Your task to perform on an android device: toggle improve location accuracy Image 0: 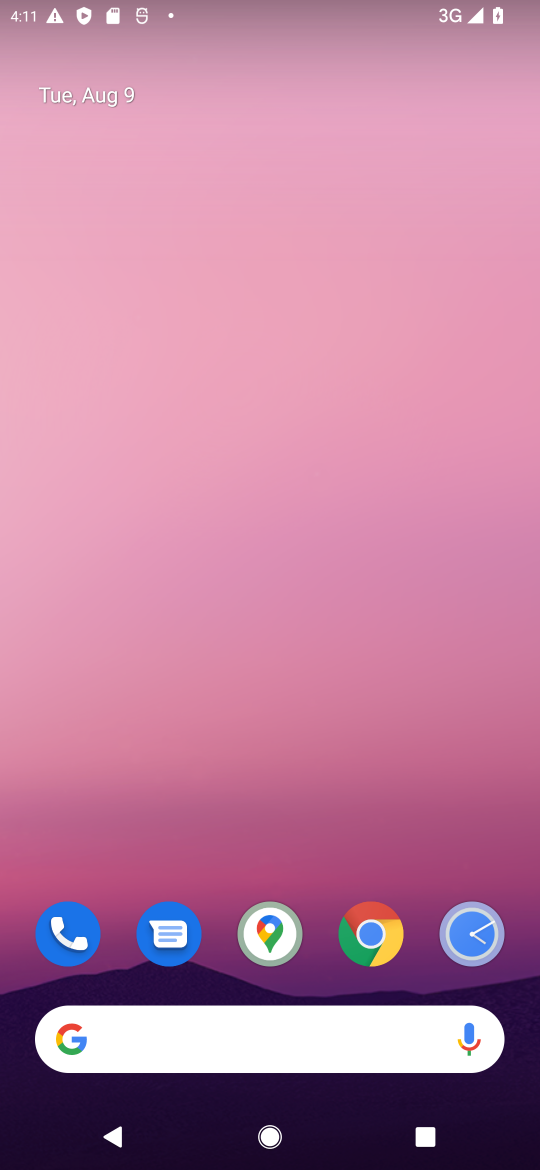
Step 0: drag from (298, 994) to (411, 144)
Your task to perform on an android device: toggle improve location accuracy Image 1: 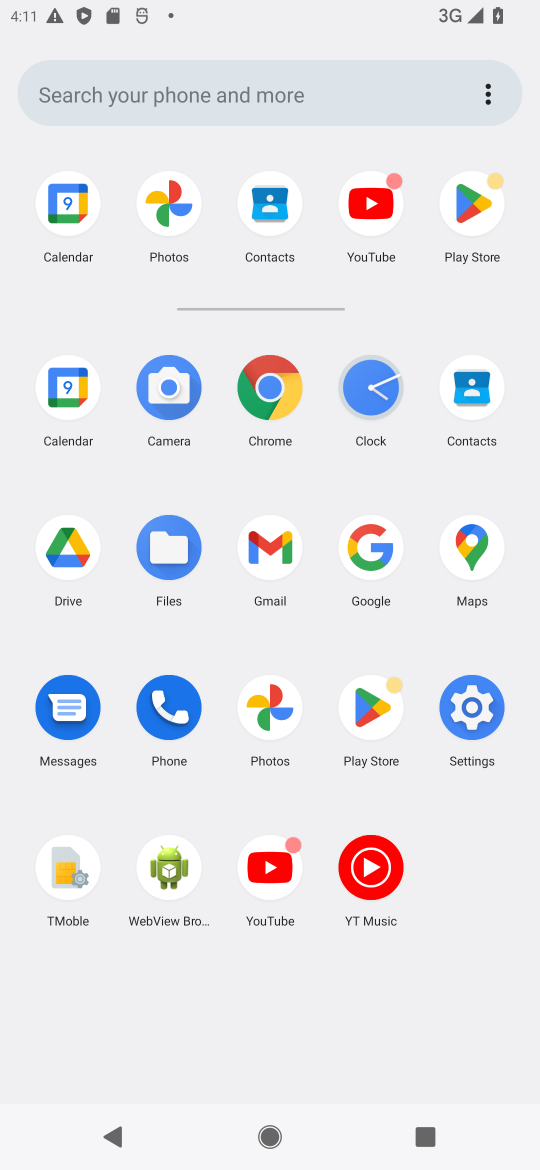
Step 1: click (477, 725)
Your task to perform on an android device: toggle improve location accuracy Image 2: 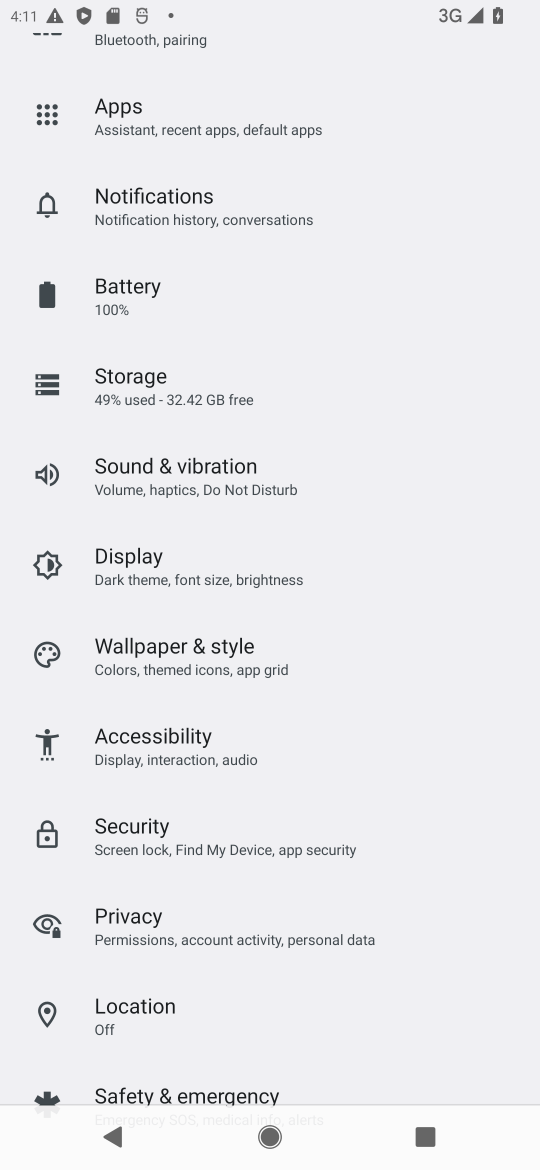
Step 2: click (264, 1009)
Your task to perform on an android device: toggle improve location accuracy Image 3: 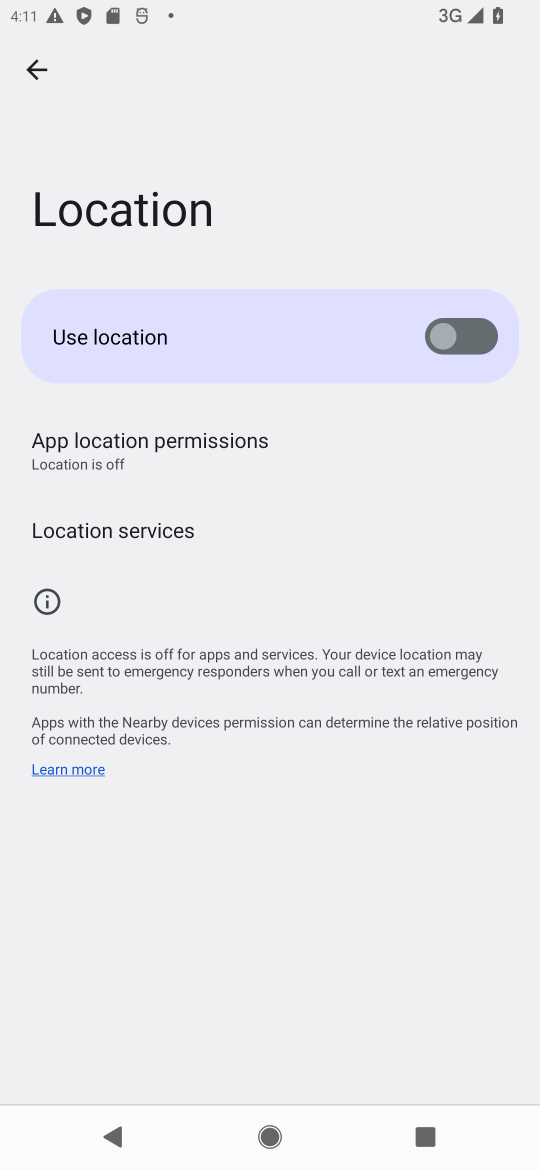
Step 3: click (417, 387)
Your task to perform on an android device: toggle improve location accuracy Image 4: 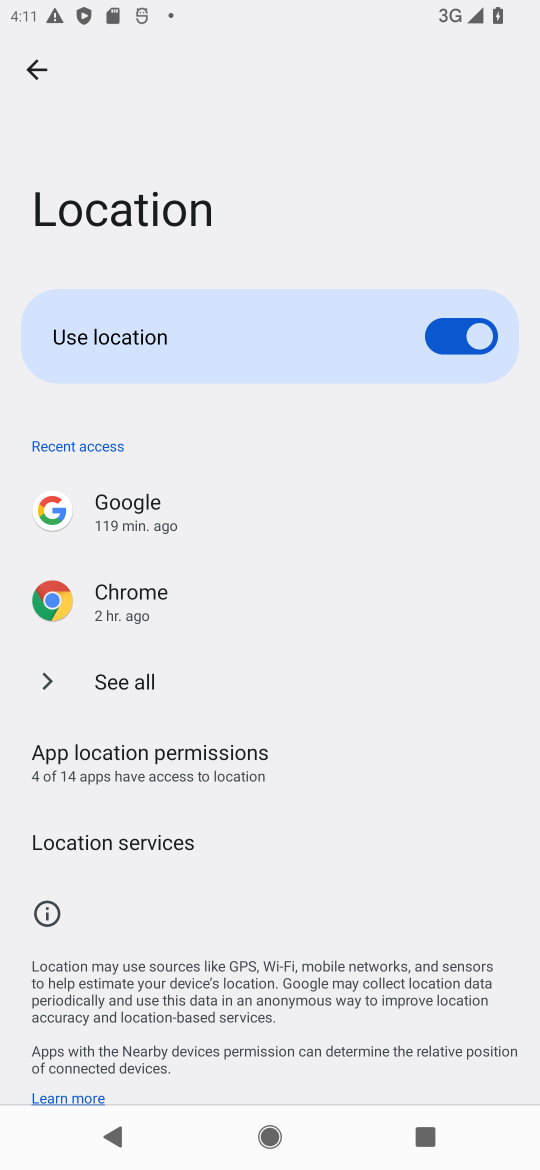
Step 4: task complete